Your task to perform on an android device: move a message to another label in the gmail app Image 0: 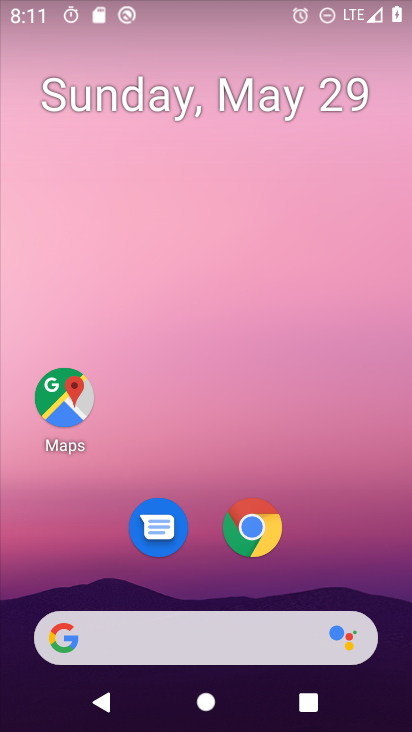
Step 0: drag from (389, 618) to (293, 88)
Your task to perform on an android device: move a message to another label in the gmail app Image 1: 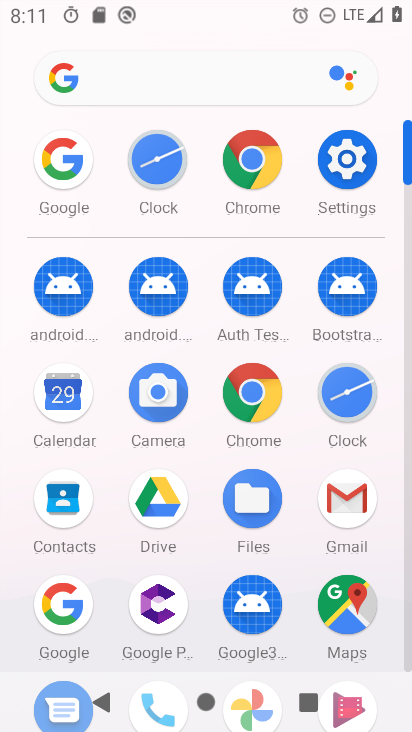
Step 1: click (352, 503)
Your task to perform on an android device: move a message to another label in the gmail app Image 2: 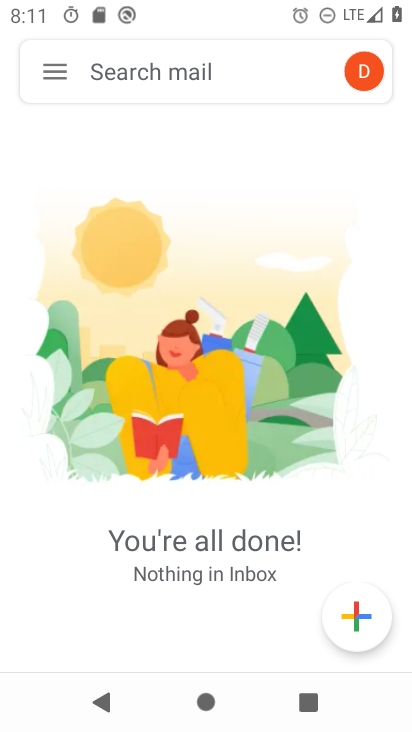
Step 2: task complete